Your task to perform on an android device: see creations saved in the google photos Image 0: 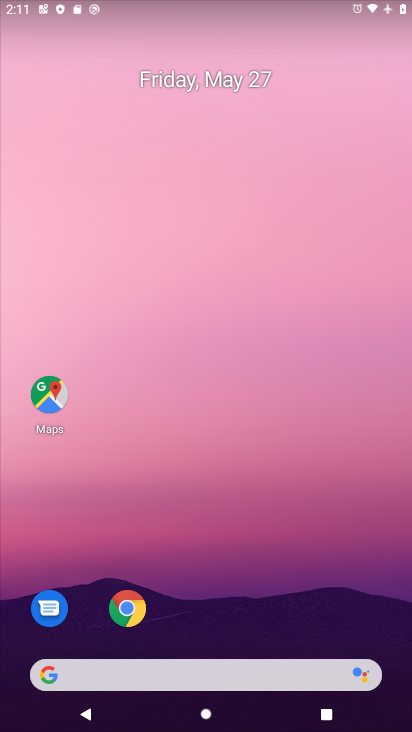
Step 0: press home button
Your task to perform on an android device: see creations saved in the google photos Image 1: 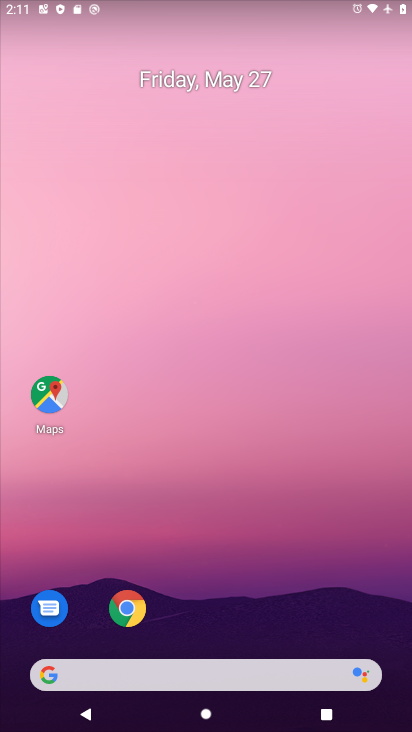
Step 1: drag from (151, 675) to (272, 206)
Your task to perform on an android device: see creations saved in the google photos Image 2: 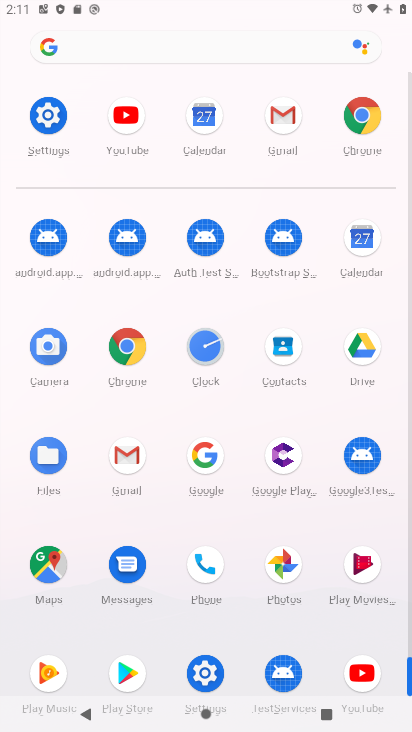
Step 2: click (281, 569)
Your task to perform on an android device: see creations saved in the google photos Image 3: 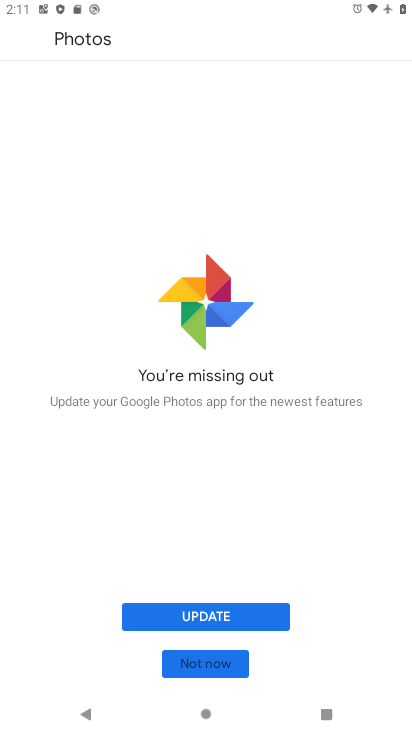
Step 3: click (228, 618)
Your task to perform on an android device: see creations saved in the google photos Image 4: 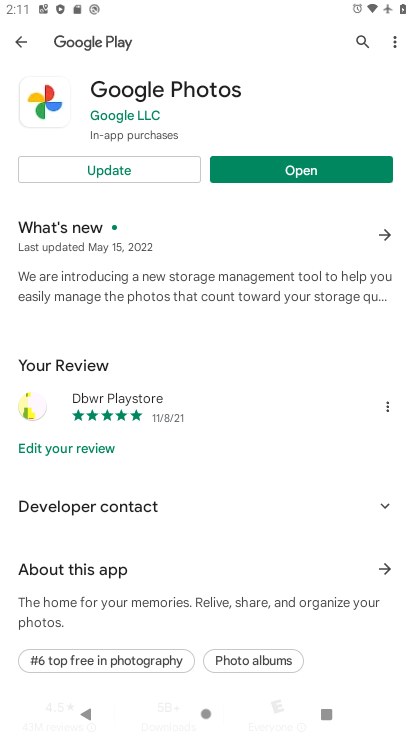
Step 4: click (113, 169)
Your task to perform on an android device: see creations saved in the google photos Image 5: 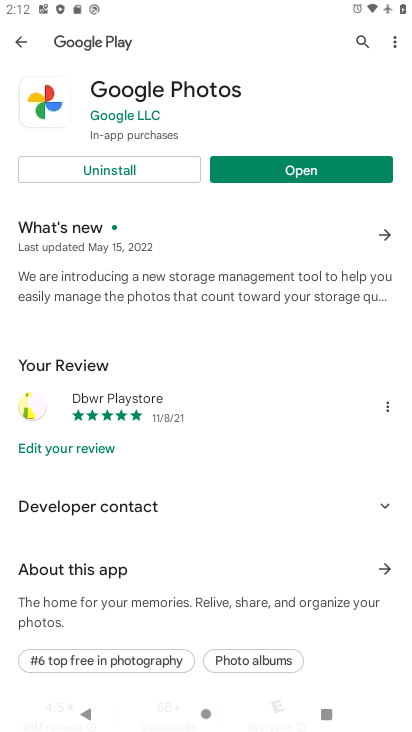
Step 5: click (299, 170)
Your task to perform on an android device: see creations saved in the google photos Image 6: 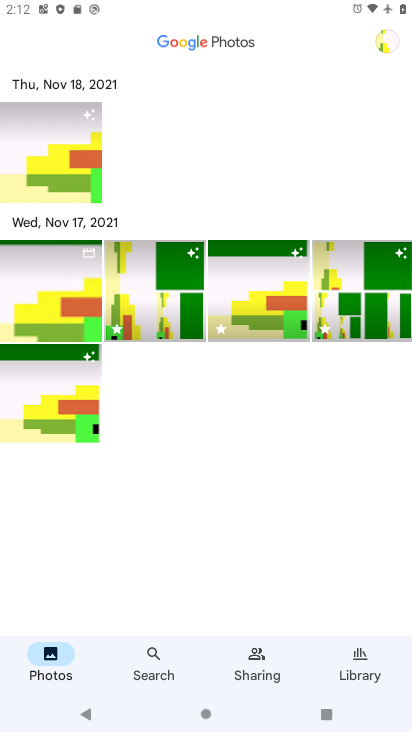
Step 6: click (155, 668)
Your task to perform on an android device: see creations saved in the google photos Image 7: 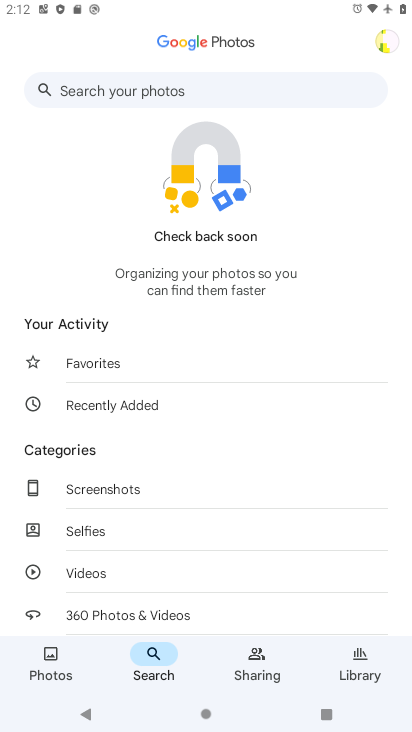
Step 7: drag from (182, 540) to (270, 75)
Your task to perform on an android device: see creations saved in the google photos Image 8: 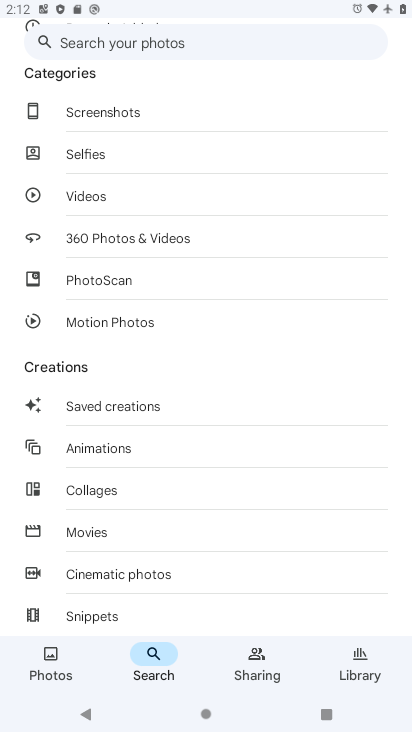
Step 8: drag from (225, 480) to (245, 144)
Your task to perform on an android device: see creations saved in the google photos Image 9: 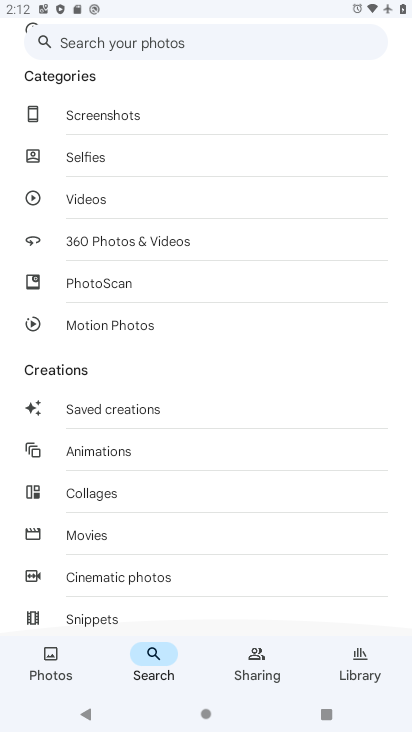
Step 9: drag from (255, 157) to (257, 577)
Your task to perform on an android device: see creations saved in the google photos Image 10: 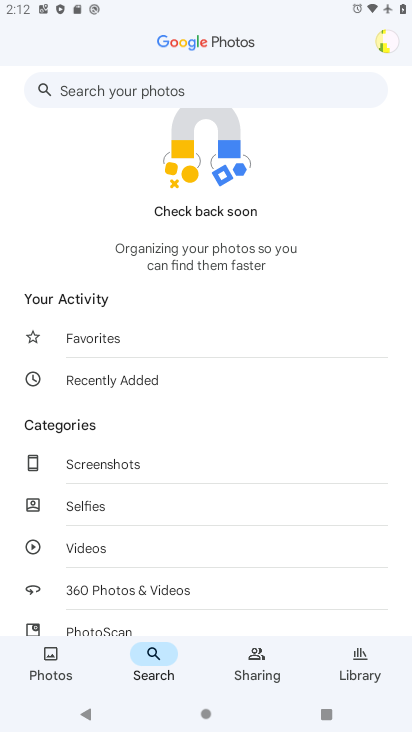
Step 10: drag from (227, 516) to (262, 192)
Your task to perform on an android device: see creations saved in the google photos Image 11: 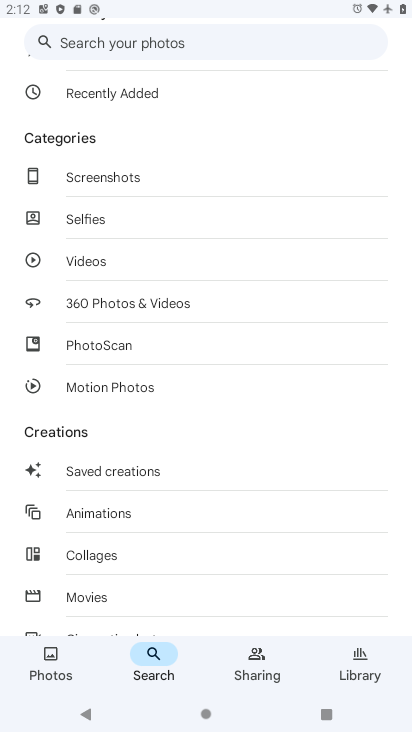
Step 11: click (116, 468)
Your task to perform on an android device: see creations saved in the google photos Image 12: 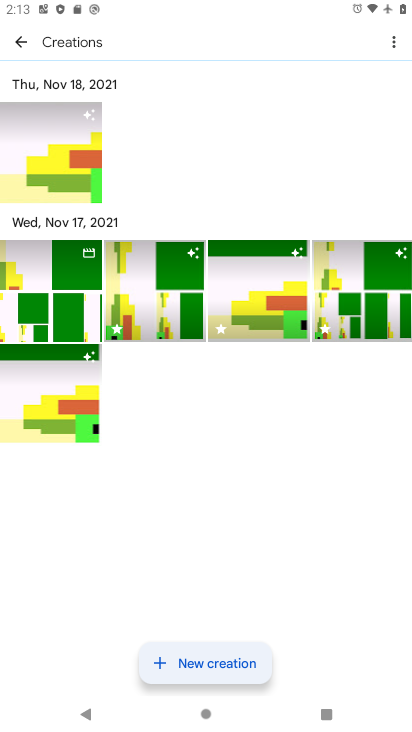
Step 12: task complete